Your task to perform on an android device: open a new tab in the chrome app Image 0: 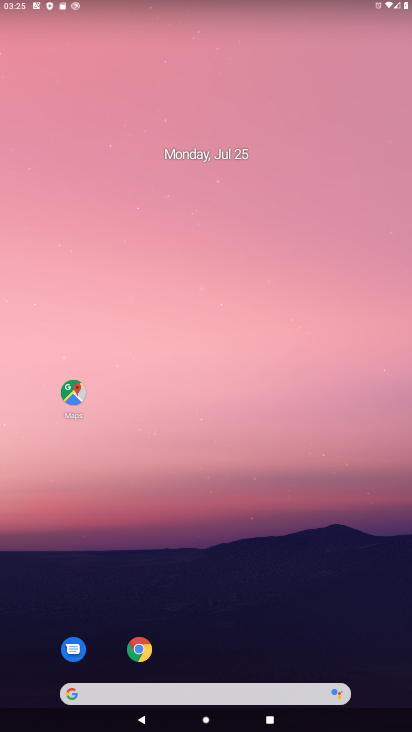
Step 0: click (140, 649)
Your task to perform on an android device: open a new tab in the chrome app Image 1: 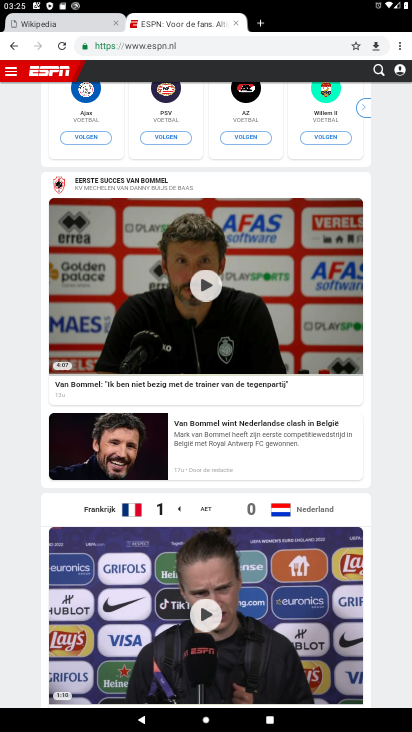
Step 1: click (400, 50)
Your task to perform on an android device: open a new tab in the chrome app Image 2: 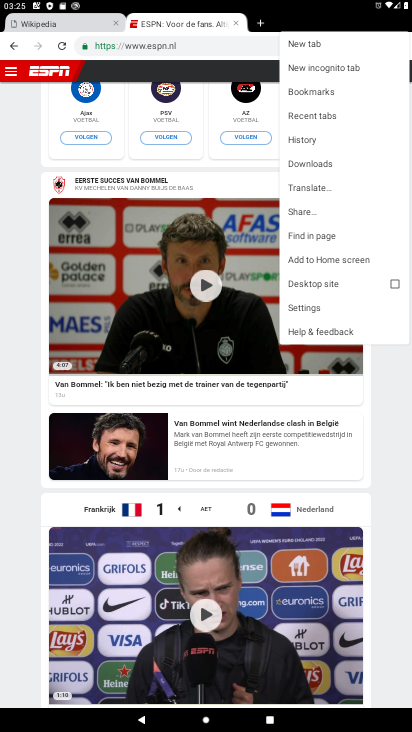
Step 2: click (296, 40)
Your task to perform on an android device: open a new tab in the chrome app Image 3: 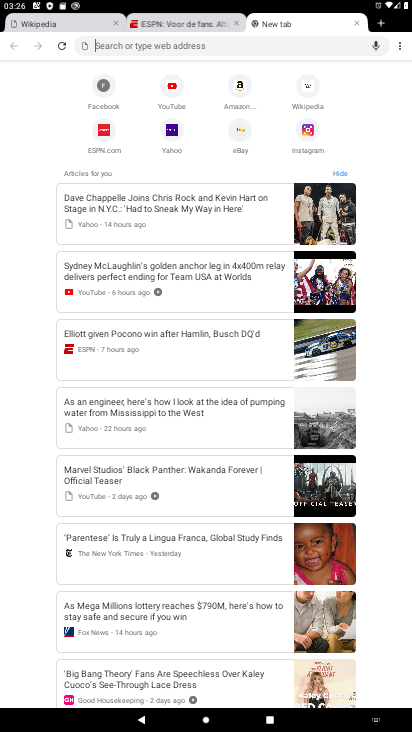
Step 3: task complete